Your task to perform on an android device: star an email in the gmail app Image 0: 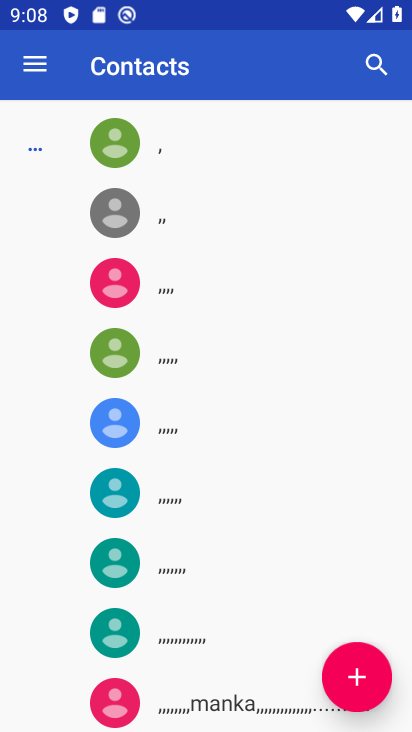
Step 0: press home button
Your task to perform on an android device: star an email in the gmail app Image 1: 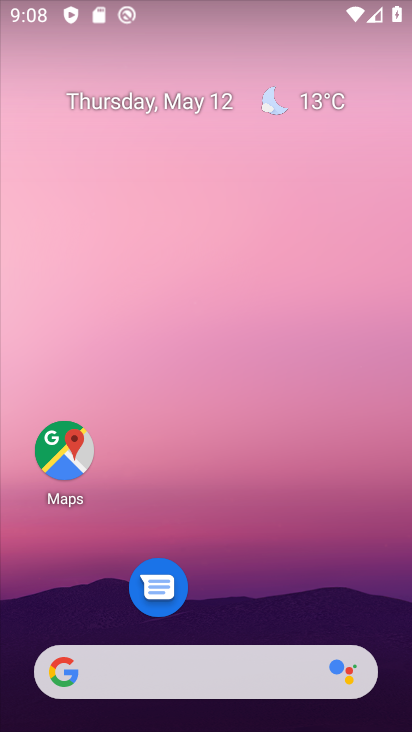
Step 1: drag from (220, 638) to (333, 646)
Your task to perform on an android device: star an email in the gmail app Image 2: 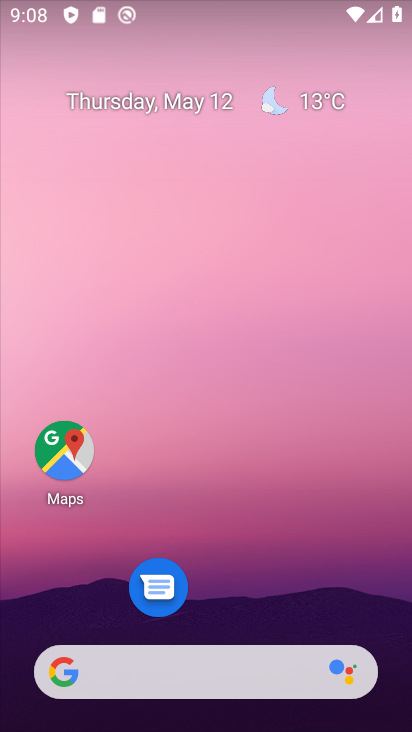
Step 2: drag from (221, 633) to (239, 29)
Your task to perform on an android device: star an email in the gmail app Image 3: 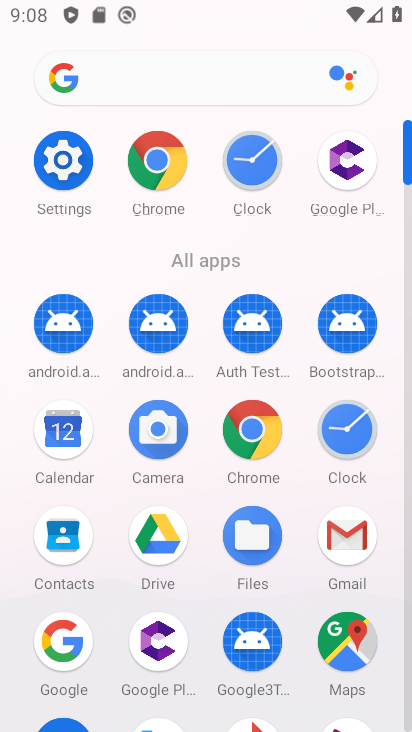
Step 3: click (330, 516)
Your task to perform on an android device: star an email in the gmail app Image 4: 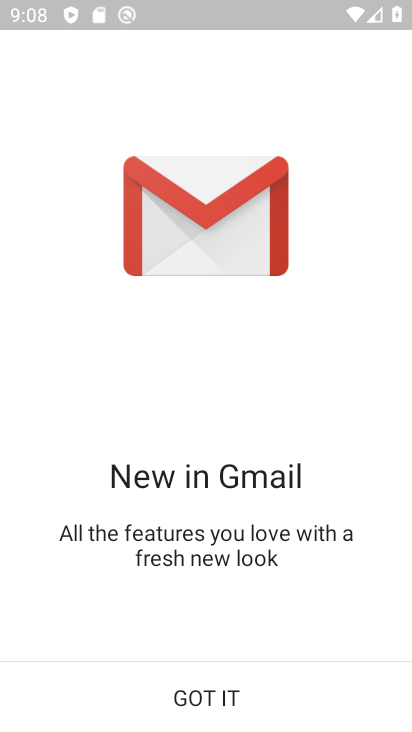
Step 4: click (238, 688)
Your task to perform on an android device: star an email in the gmail app Image 5: 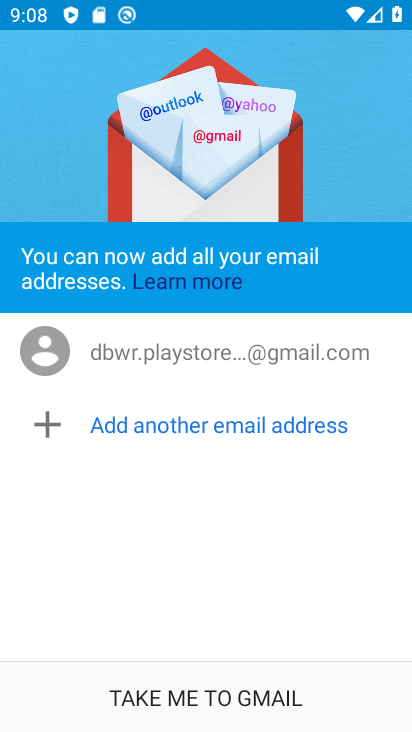
Step 5: click (246, 700)
Your task to perform on an android device: star an email in the gmail app Image 6: 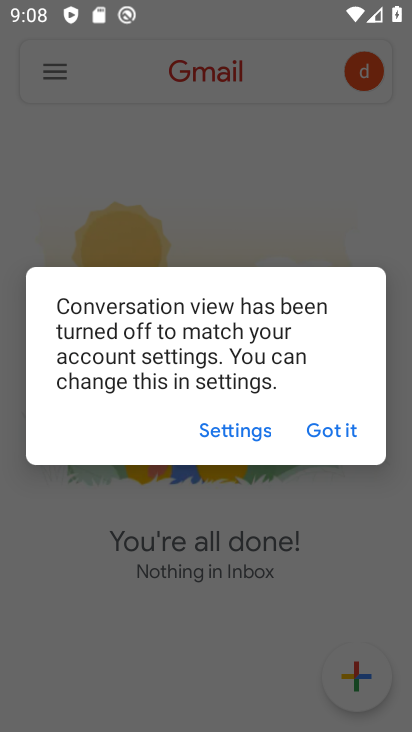
Step 6: click (360, 441)
Your task to perform on an android device: star an email in the gmail app Image 7: 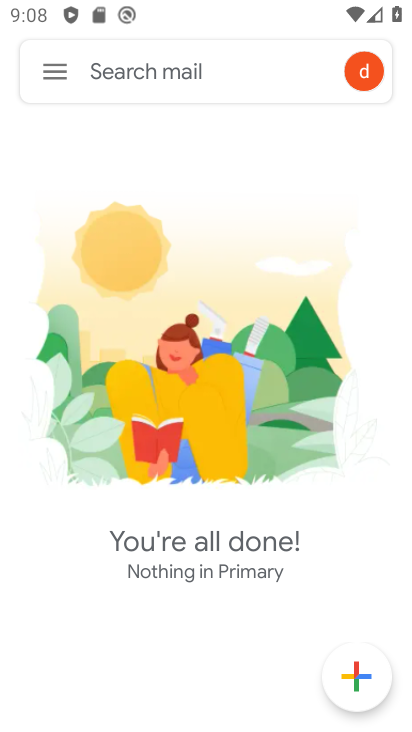
Step 7: click (53, 69)
Your task to perform on an android device: star an email in the gmail app Image 8: 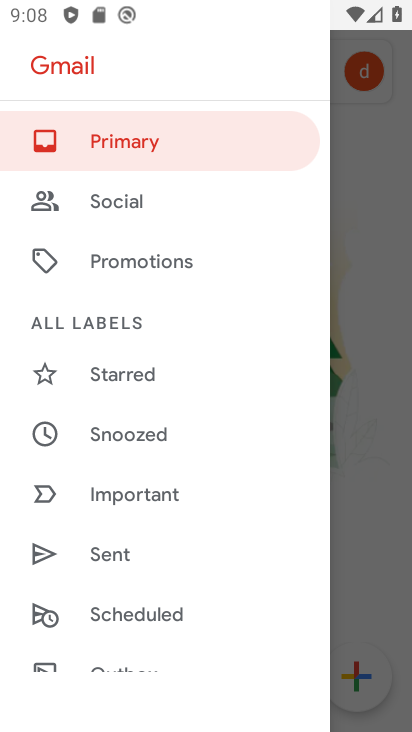
Step 8: drag from (132, 571) to (120, 200)
Your task to perform on an android device: star an email in the gmail app Image 9: 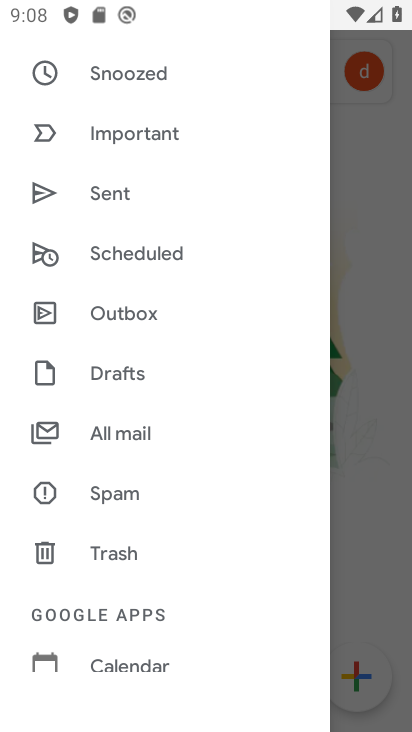
Step 9: click (117, 434)
Your task to perform on an android device: star an email in the gmail app Image 10: 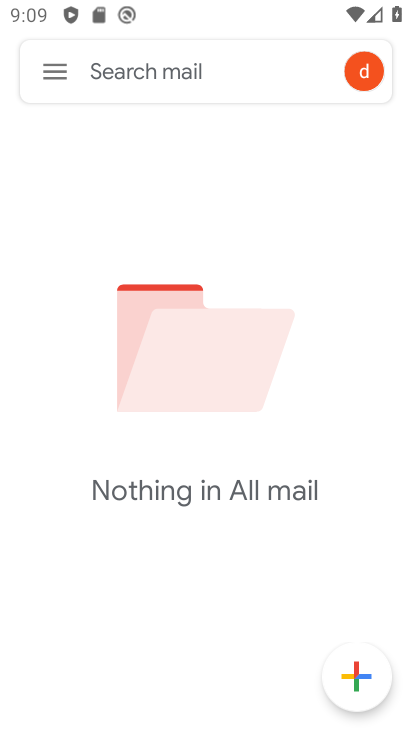
Step 10: task complete